Your task to perform on an android device: check out phone information Image 0: 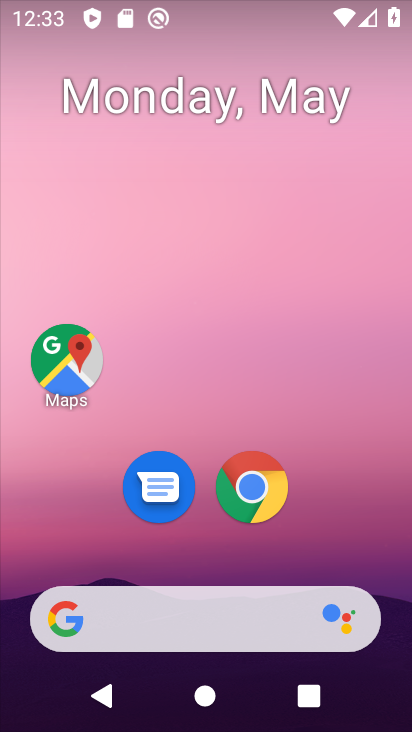
Step 0: drag from (185, 637) to (158, 347)
Your task to perform on an android device: check out phone information Image 1: 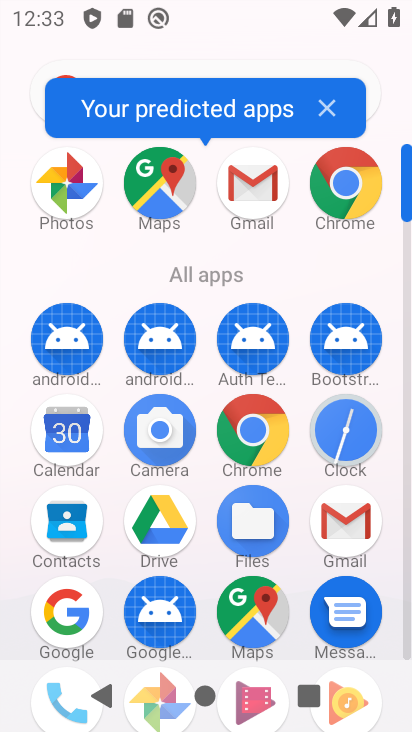
Step 1: drag from (257, 574) to (277, 140)
Your task to perform on an android device: check out phone information Image 2: 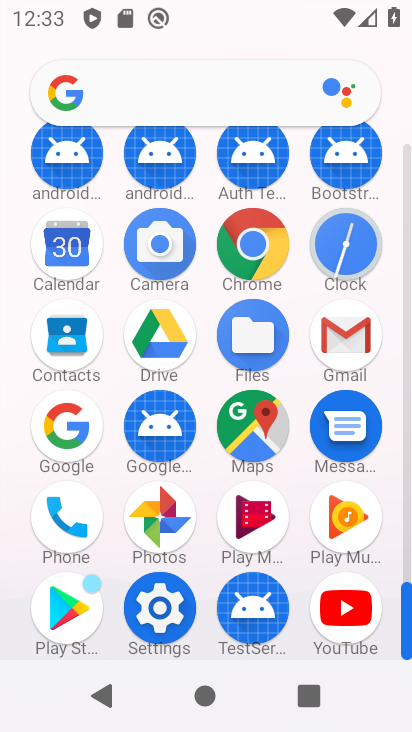
Step 2: click (169, 614)
Your task to perform on an android device: check out phone information Image 3: 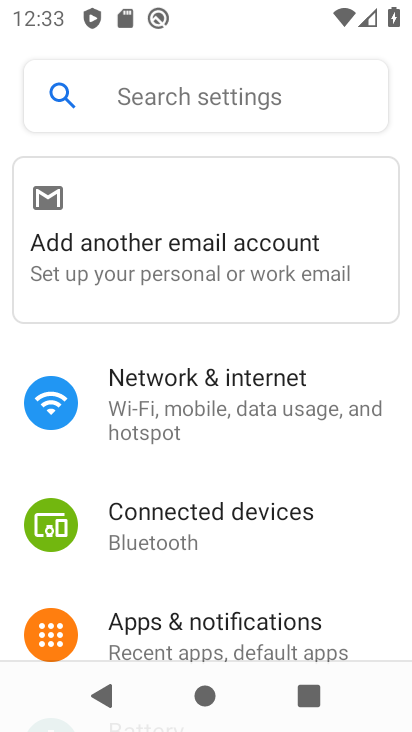
Step 3: drag from (228, 601) to (243, 323)
Your task to perform on an android device: check out phone information Image 4: 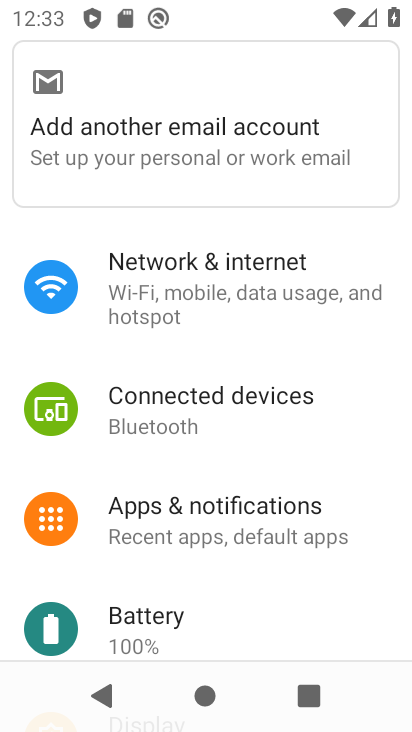
Step 4: drag from (201, 541) to (200, 74)
Your task to perform on an android device: check out phone information Image 5: 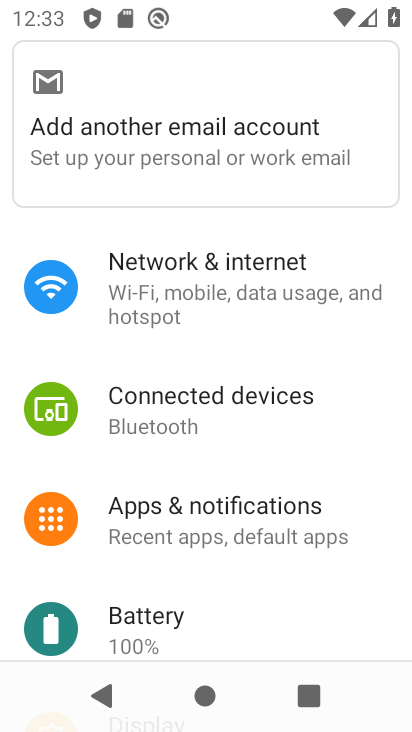
Step 5: drag from (204, 551) to (274, 19)
Your task to perform on an android device: check out phone information Image 6: 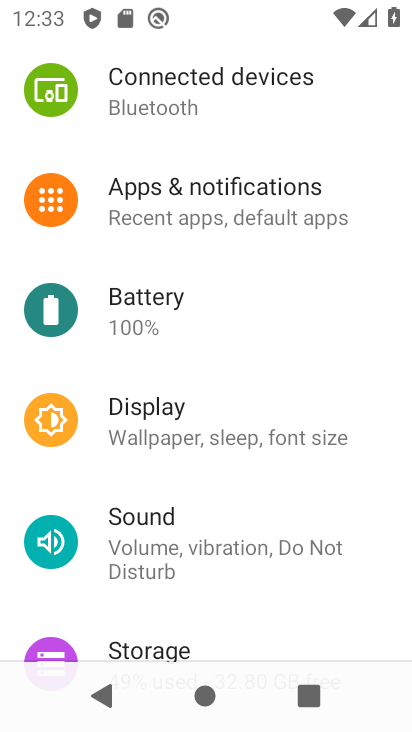
Step 6: drag from (239, 540) to (291, 304)
Your task to perform on an android device: check out phone information Image 7: 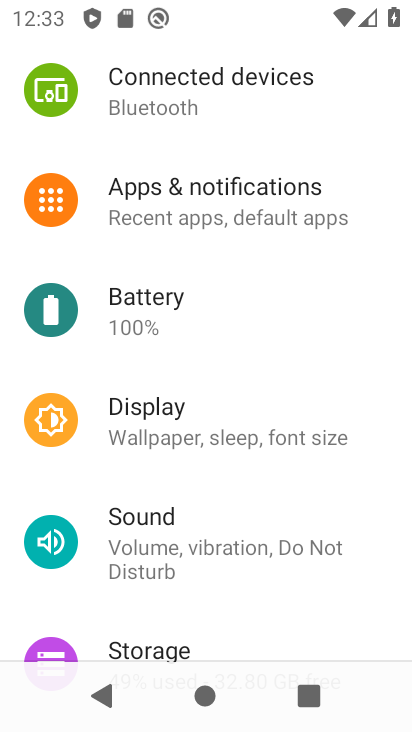
Step 7: drag from (193, 638) to (219, 208)
Your task to perform on an android device: check out phone information Image 8: 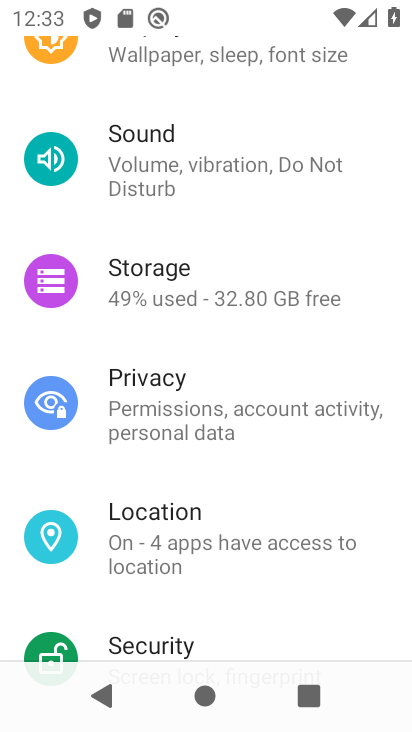
Step 8: drag from (261, 602) to (89, 59)
Your task to perform on an android device: check out phone information Image 9: 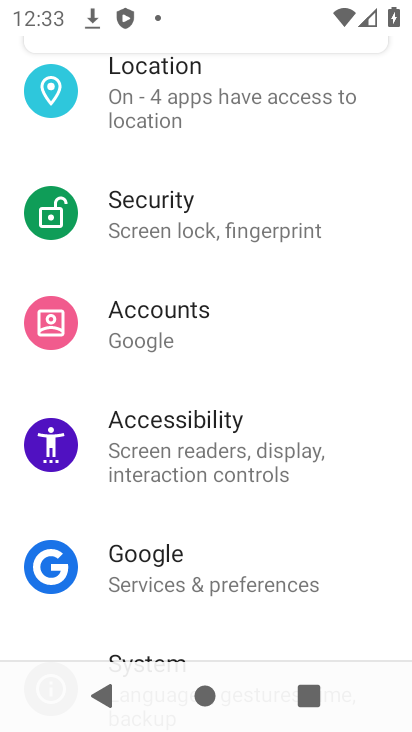
Step 9: drag from (191, 588) to (222, 152)
Your task to perform on an android device: check out phone information Image 10: 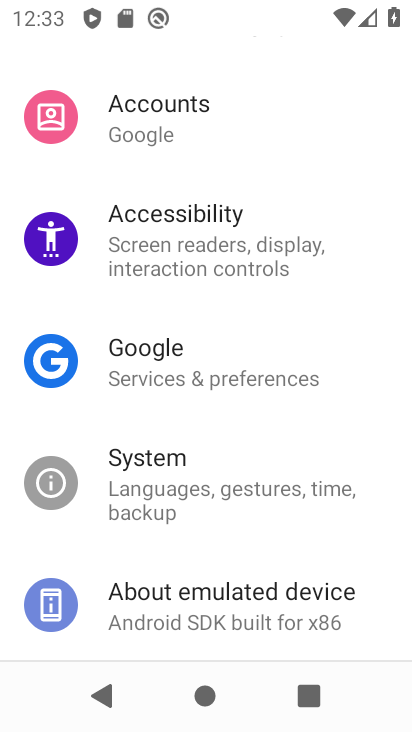
Step 10: click (185, 628)
Your task to perform on an android device: check out phone information Image 11: 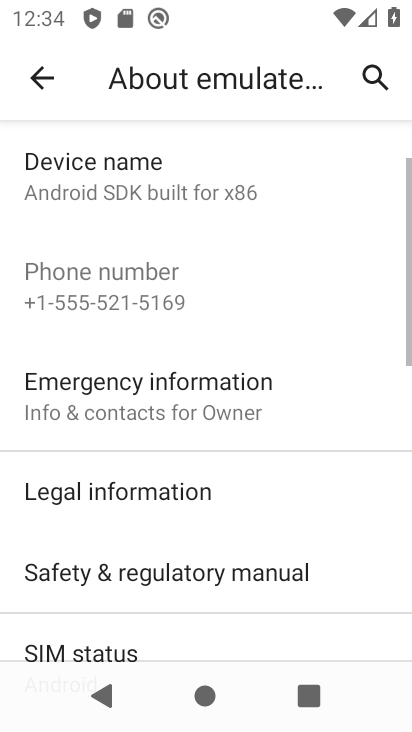
Step 11: task complete